Your task to perform on an android device: toggle pop-ups in chrome Image 0: 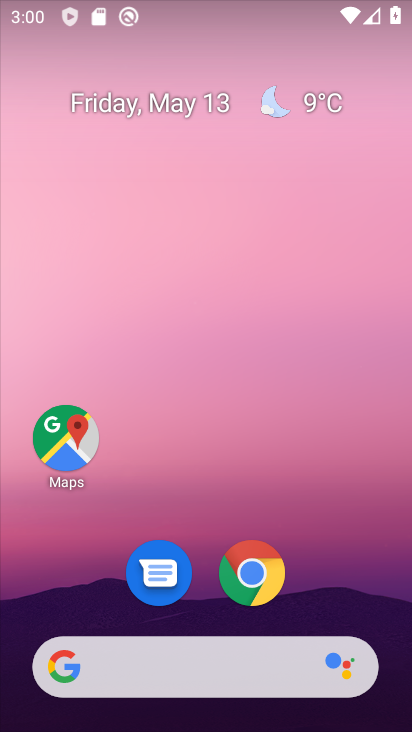
Step 0: click (252, 573)
Your task to perform on an android device: toggle pop-ups in chrome Image 1: 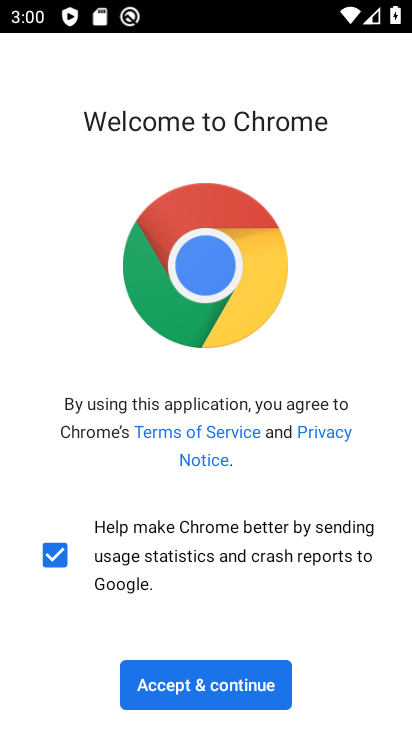
Step 1: click (215, 664)
Your task to perform on an android device: toggle pop-ups in chrome Image 2: 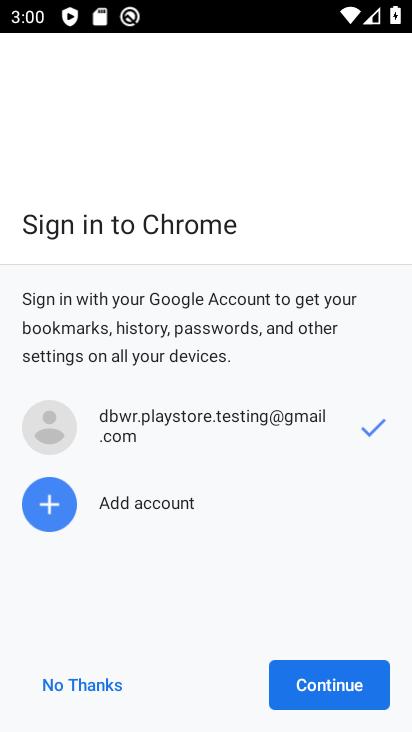
Step 2: click (355, 682)
Your task to perform on an android device: toggle pop-ups in chrome Image 3: 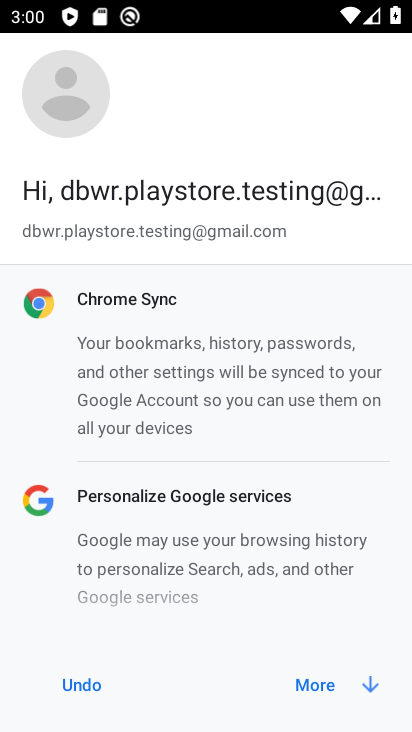
Step 3: click (341, 687)
Your task to perform on an android device: toggle pop-ups in chrome Image 4: 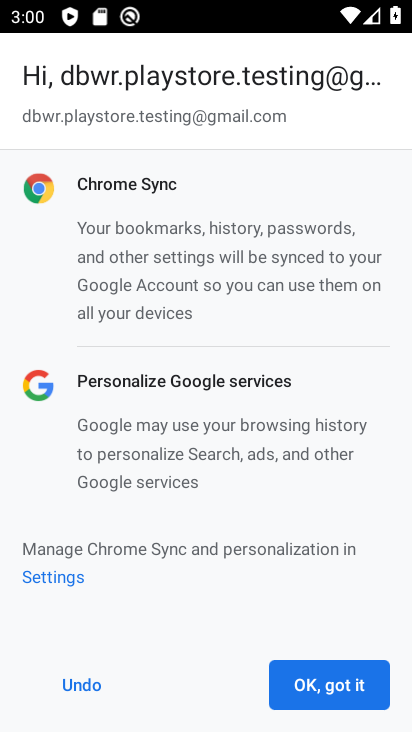
Step 4: click (341, 687)
Your task to perform on an android device: toggle pop-ups in chrome Image 5: 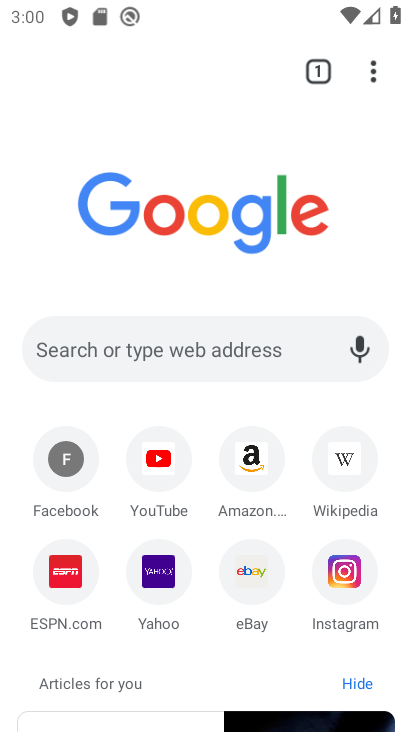
Step 5: drag from (372, 69) to (194, 579)
Your task to perform on an android device: toggle pop-ups in chrome Image 6: 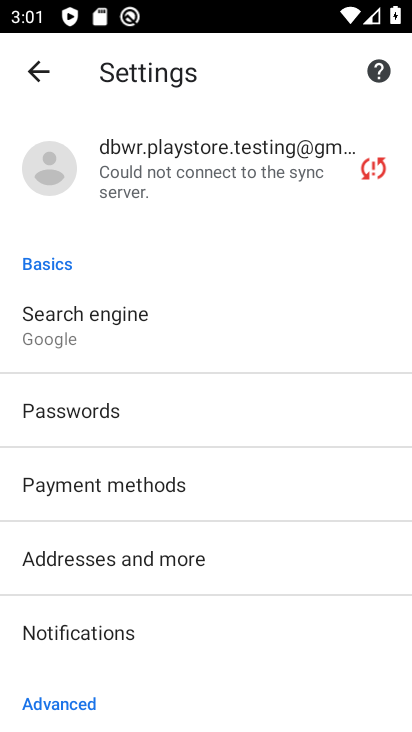
Step 6: drag from (191, 579) to (340, 120)
Your task to perform on an android device: toggle pop-ups in chrome Image 7: 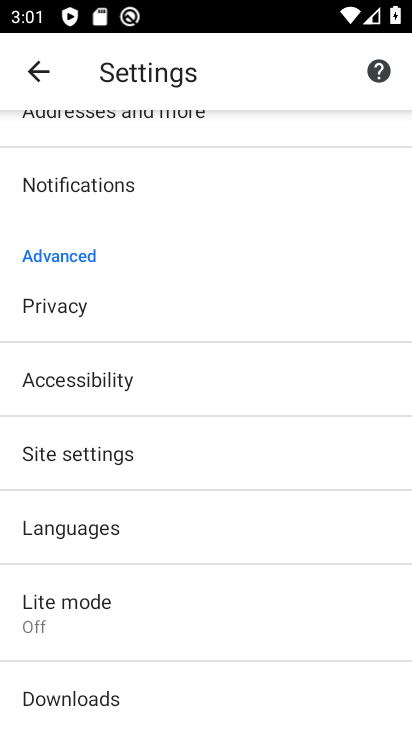
Step 7: click (153, 461)
Your task to perform on an android device: toggle pop-ups in chrome Image 8: 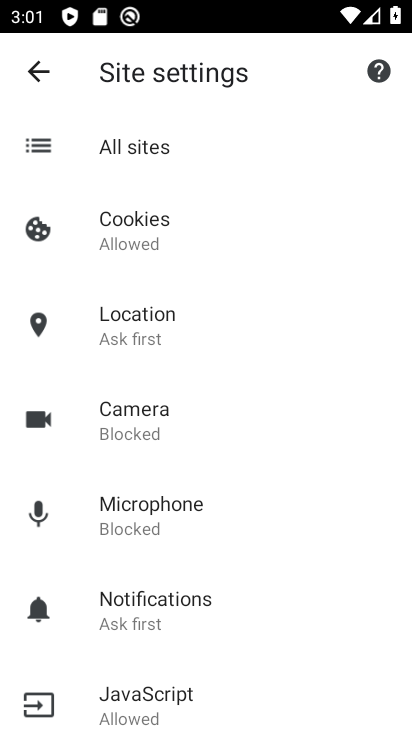
Step 8: drag from (210, 592) to (341, 275)
Your task to perform on an android device: toggle pop-ups in chrome Image 9: 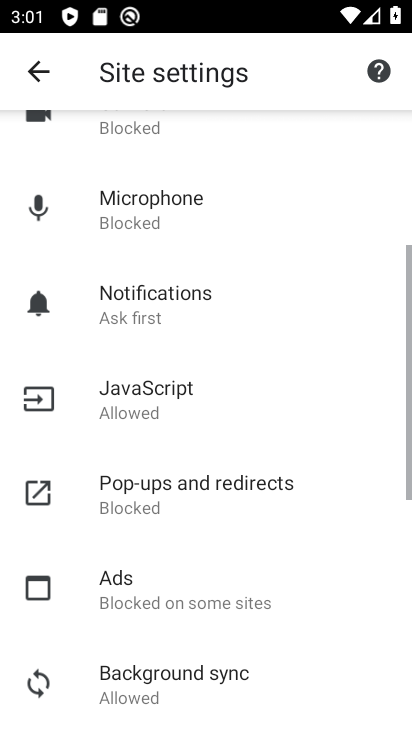
Step 9: click (260, 541)
Your task to perform on an android device: toggle pop-ups in chrome Image 10: 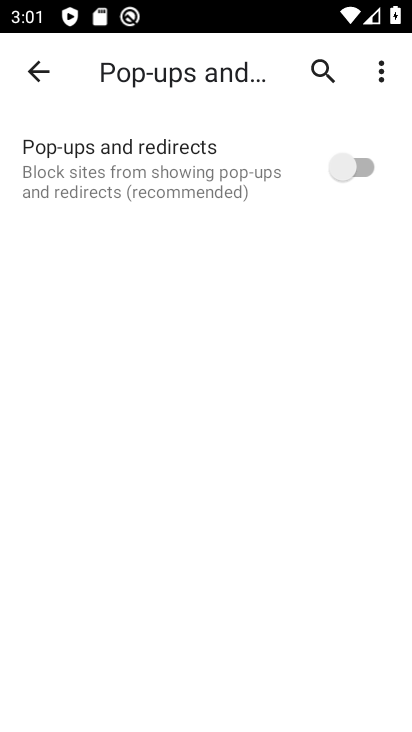
Step 10: click (376, 170)
Your task to perform on an android device: toggle pop-ups in chrome Image 11: 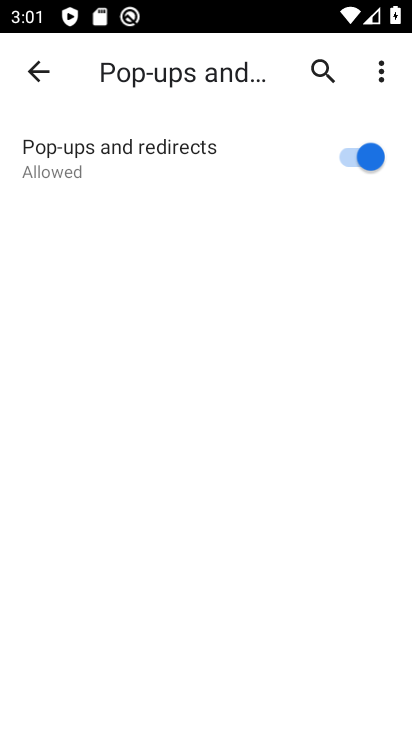
Step 11: task complete